Your task to perform on an android device: refresh tabs in the chrome app Image 0: 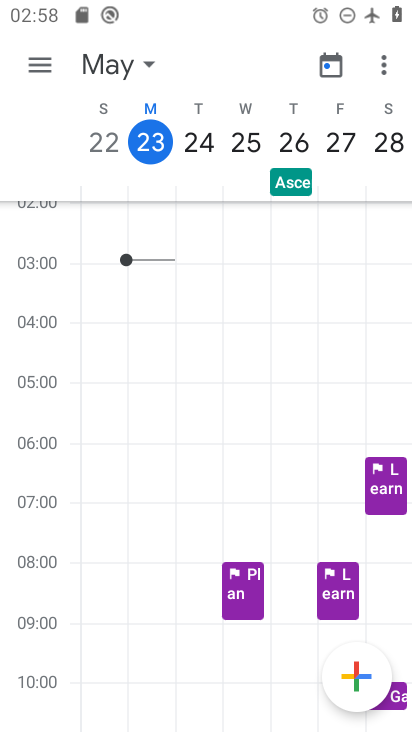
Step 0: press home button
Your task to perform on an android device: refresh tabs in the chrome app Image 1: 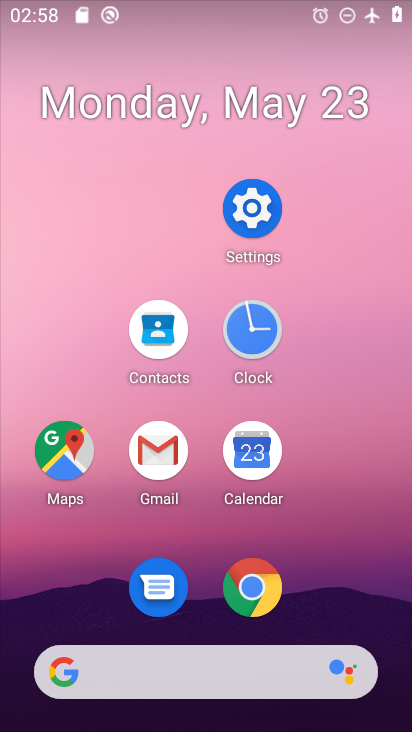
Step 1: click (241, 589)
Your task to perform on an android device: refresh tabs in the chrome app Image 2: 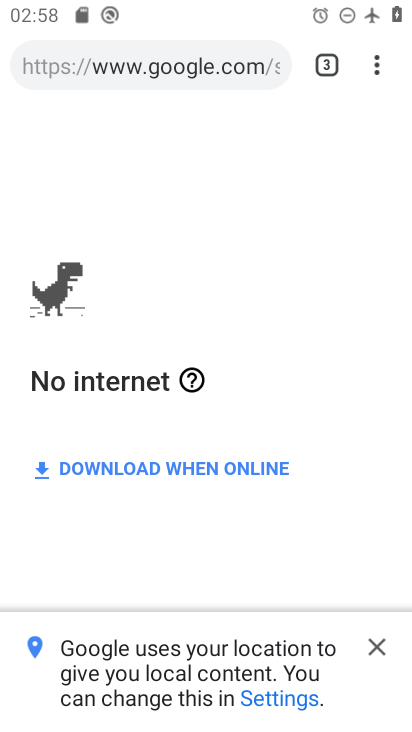
Step 2: click (334, 71)
Your task to perform on an android device: refresh tabs in the chrome app Image 3: 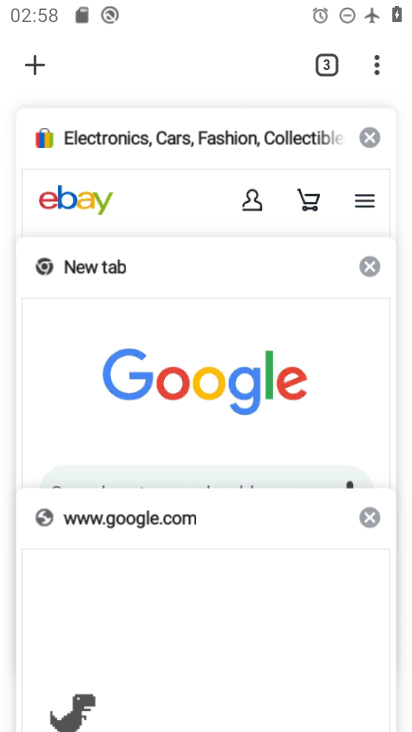
Step 3: click (256, 248)
Your task to perform on an android device: refresh tabs in the chrome app Image 4: 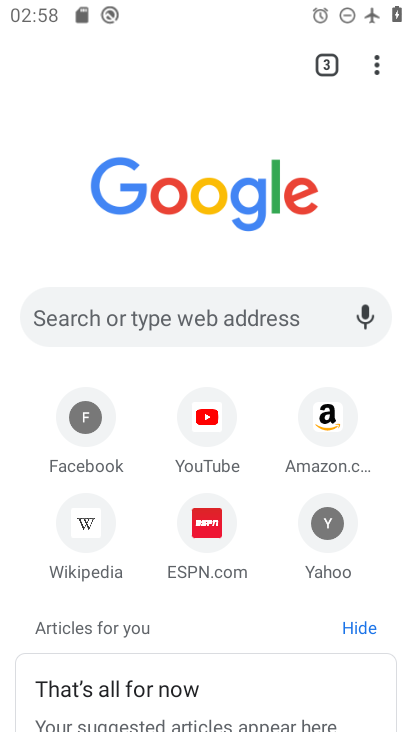
Step 4: click (386, 71)
Your task to perform on an android device: refresh tabs in the chrome app Image 5: 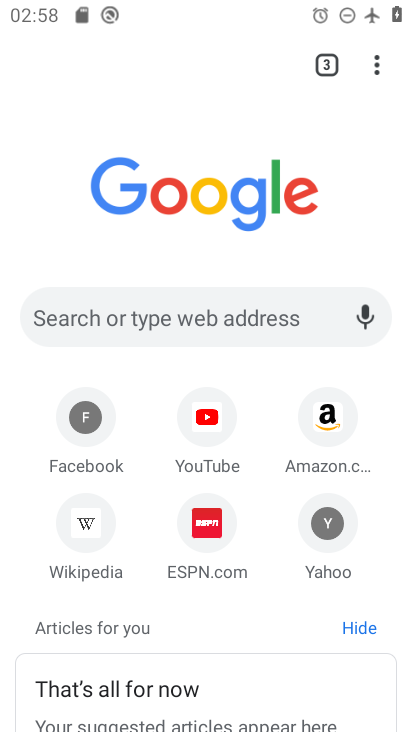
Step 5: click (386, 71)
Your task to perform on an android device: refresh tabs in the chrome app Image 6: 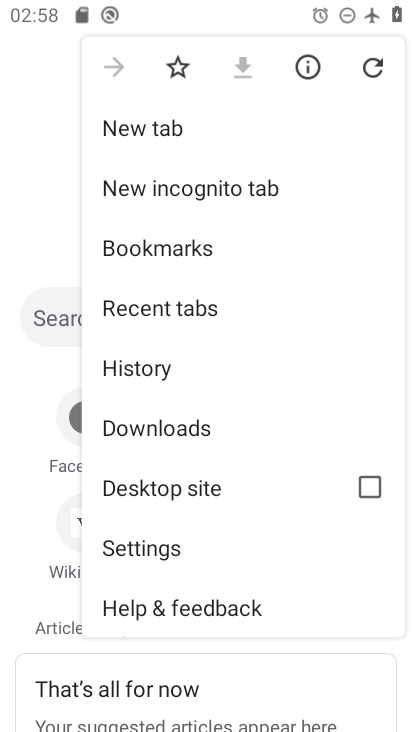
Step 6: click (386, 71)
Your task to perform on an android device: refresh tabs in the chrome app Image 7: 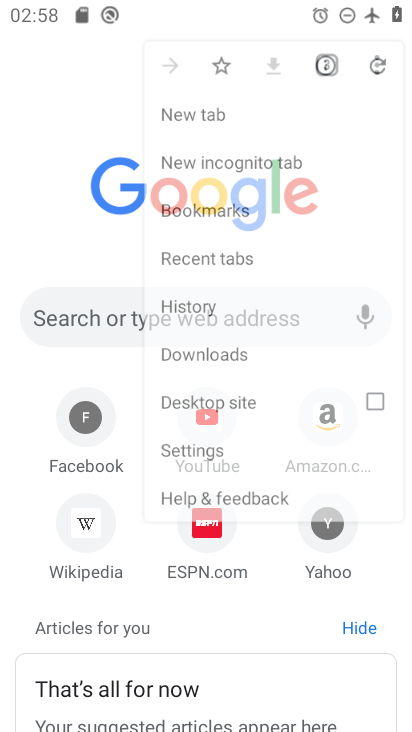
Step 7: click (386, 71)
Your task to perform on an android device: refresh tabs in the chrome app Image 8: 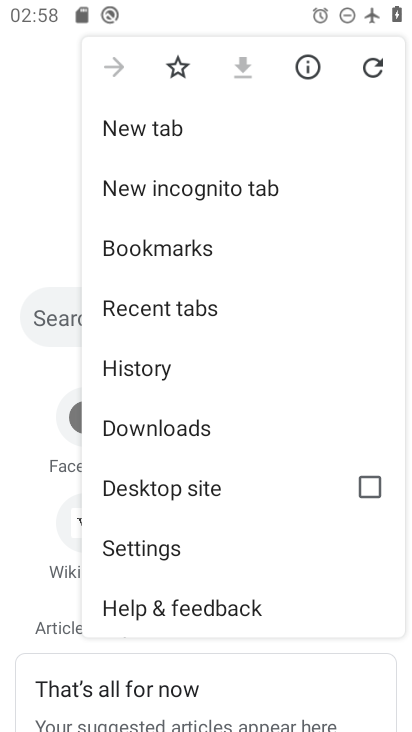
Step 8: task complete